Your task to perform on an android device: search for starred emails in the gmail app Image 0: 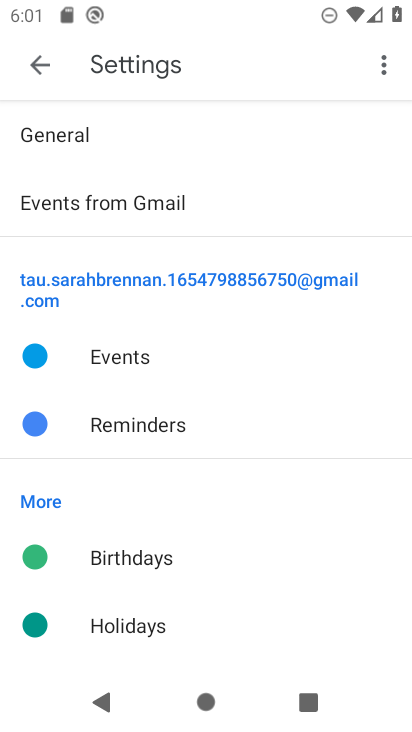
Step 0: press home button
Your task to perform on an android device: search for starred emails in the gmail app Image 1: 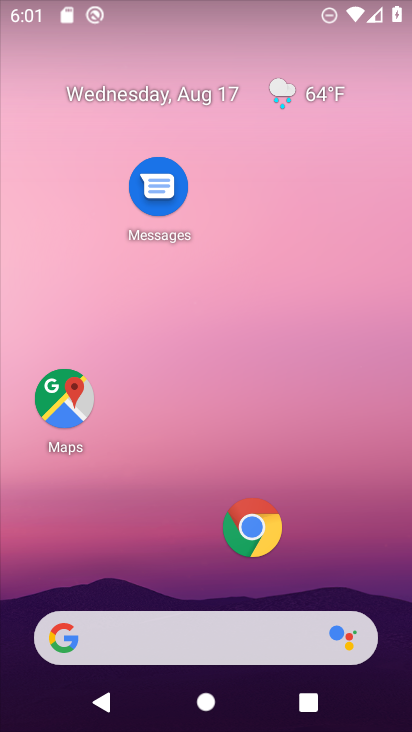
Step 1: drag from (200, 356) to (153, 45)
Your task to perform on an android device: search for starred emails in the gmail app Image 2: 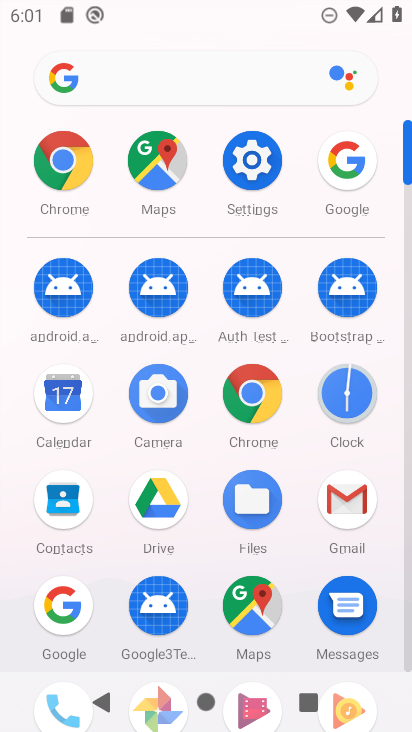
Step 2: click (348, 508)
Your task to perform on an android device: search for starred emails in the gmail app Image 3: 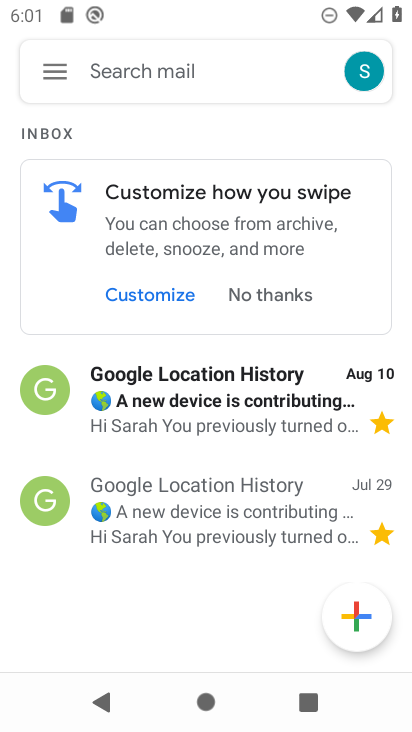
Step 3: click (56, 68)
Your task to perform on an android device: search for starred emails in the gmail app Image 4: 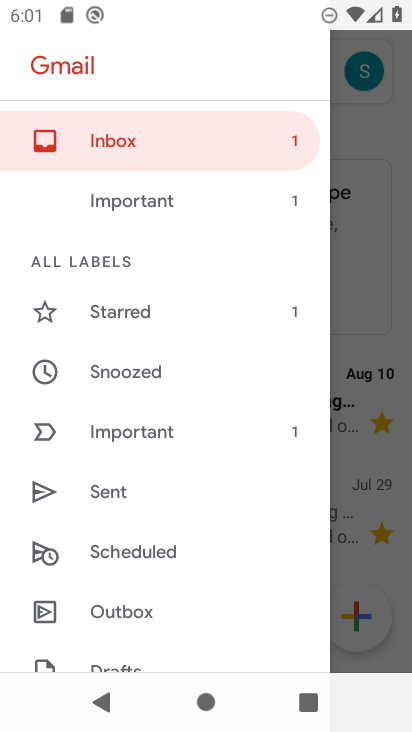
Step 4: click (101, 299)
Your task to perform on an android device: search for starred emails in the gmail app Image 5: 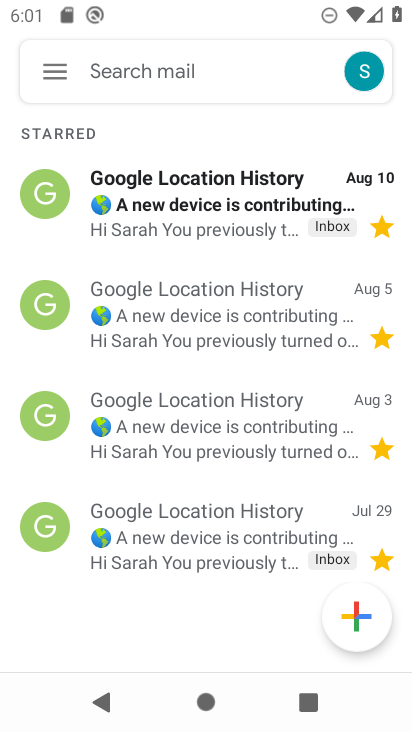
Step 5: task complete